Your task to perform on an android device: Open Google Maps and go to "Timeline" Image 0: 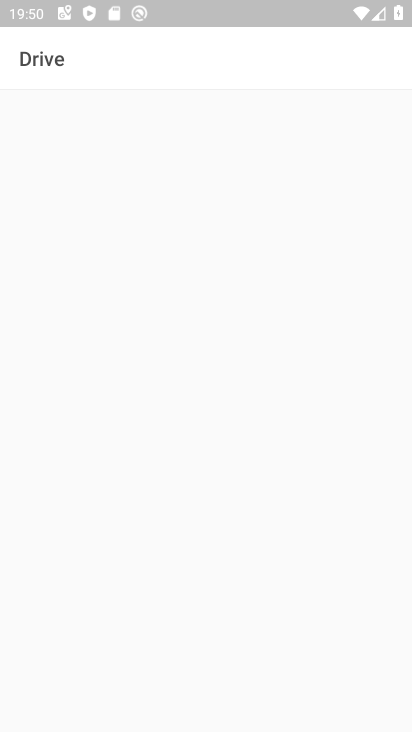
Step 0: press back button
Your task to perform on an android device: Open Google Maps and go to "Timeline" Image 1: 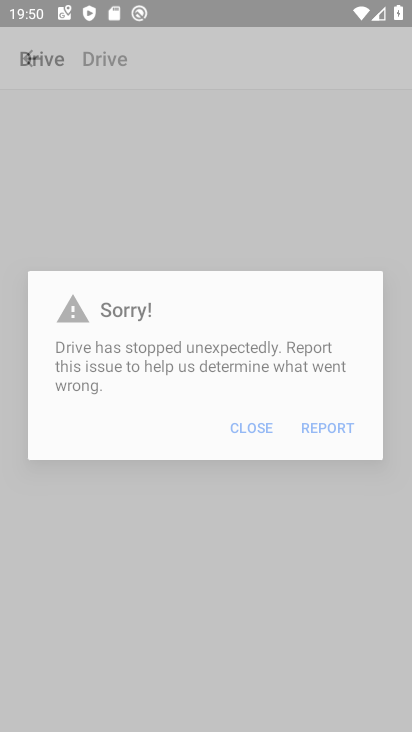
Step 1: press back button
Your task to perform on an android device: Open Google Maps and go to "Timeline" Image 2: 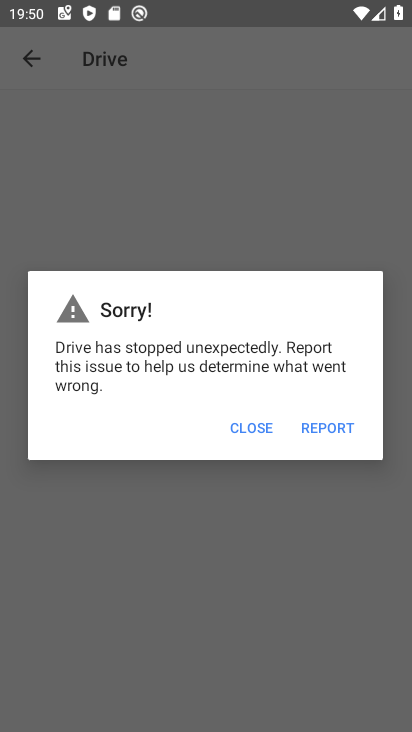
Step 2: press home button
Your task to perform on an android device: Open Google Maps and go to "Timeline" Image 3: 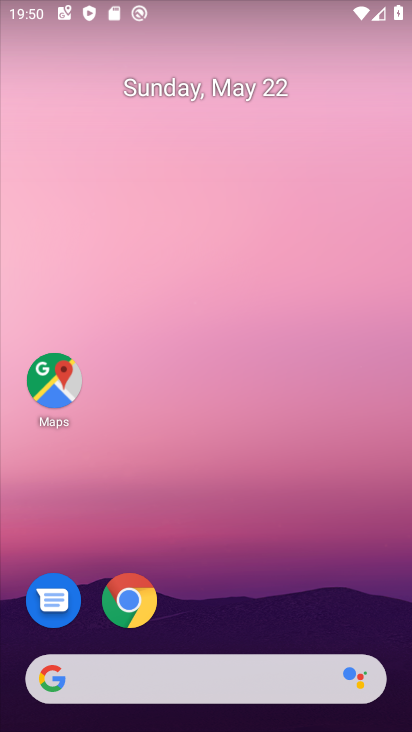
Step 3: drag from (283, 556) to (256, 31)
Your task to perform on an android device: Open Google Maps and go to "Timeline" Image 4: 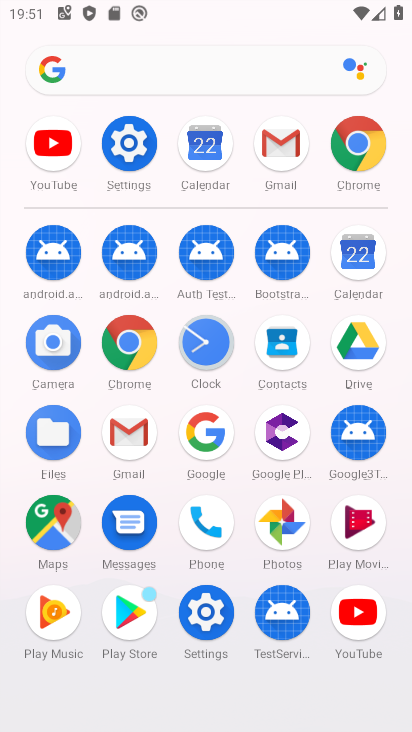
Step 4: click (55, 521)
Your task to perform on an android device: Open Google Maps and go to "Timeline" Image 5: 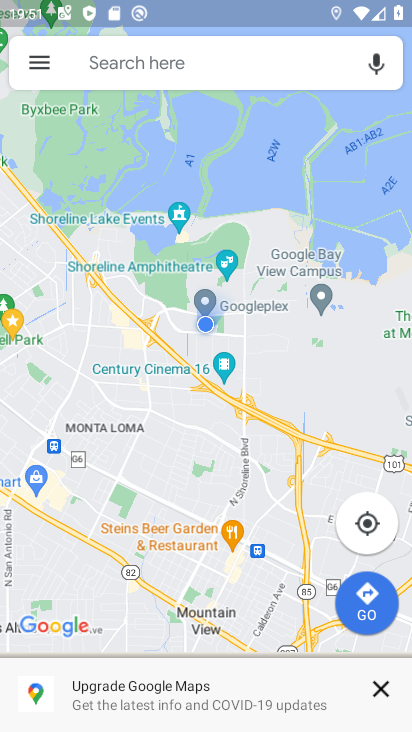
Step 5: click (36, 59)
Your task to perform on an android device: Open Google Maps and go to "Timeline" Image 6: 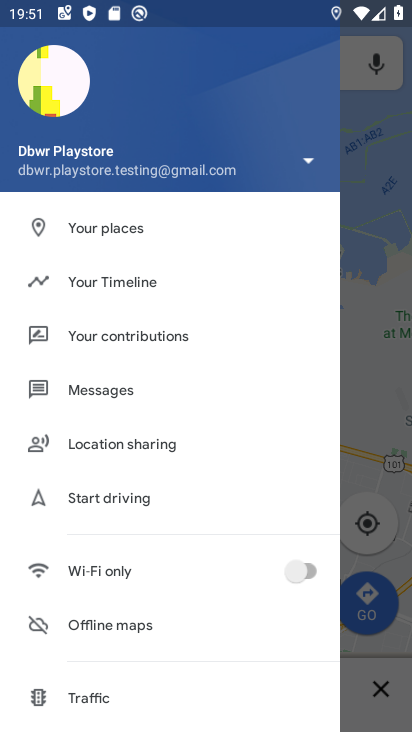
Step 6: click (117, 283)
Your task to perform on an android device: Open Google Maps and go to "Timeline" Image 7: 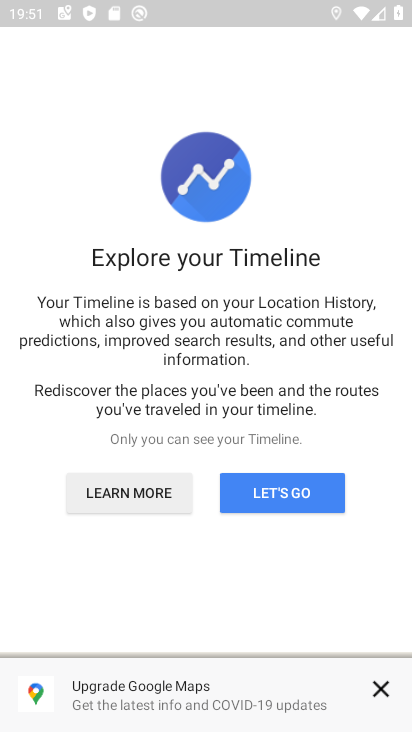
Step 7: click (291, 491)
Your task to perform on an android device: Open Google Maps and go to "Timeline" Image 8: 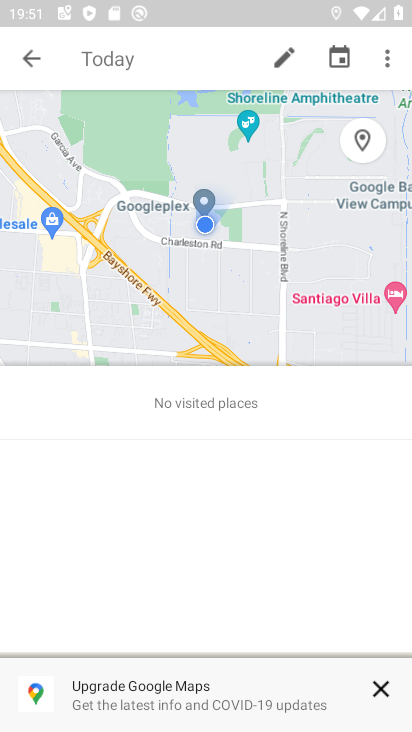
Step 8: task complete